Your task to perform on an android device: toggle sleep mode Image 0: 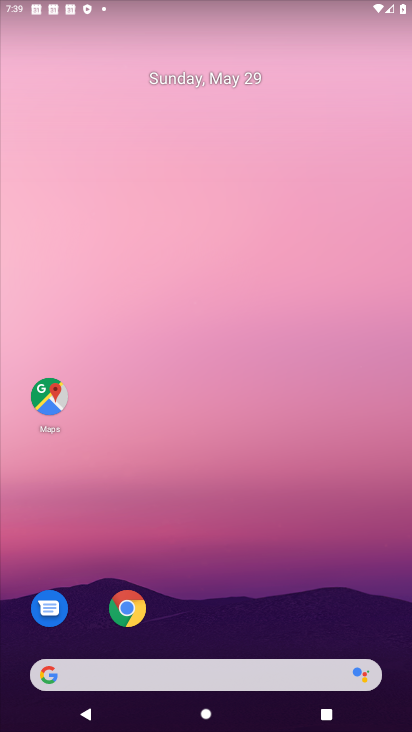
Step 0: drag from (236, 591) to (101, 88)
Your task to perform on an android device: toggle sleep mode Image 1: 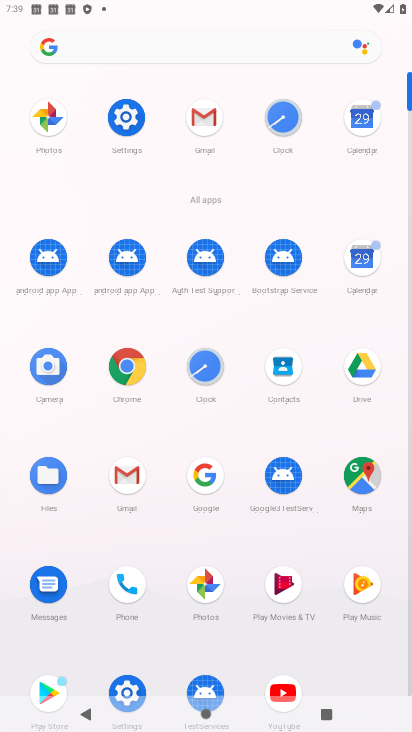
Step 1: click (125, 115)
Your task to perform on an android device: toggle sleep mode Image 2: 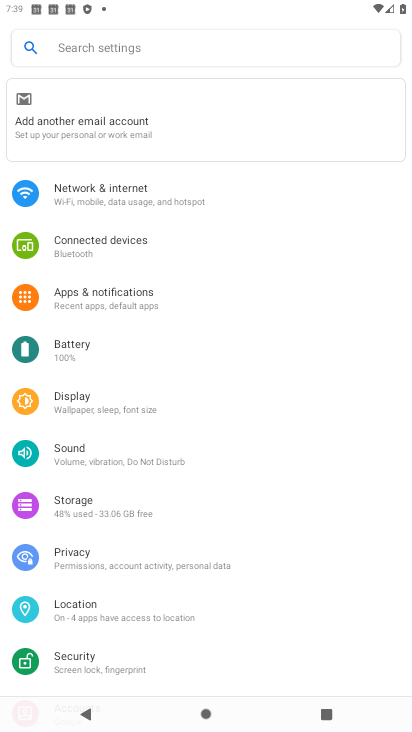
Step 2: click (66, 397)
Your task to perform on an android device: toggle sleep mode Image 3: 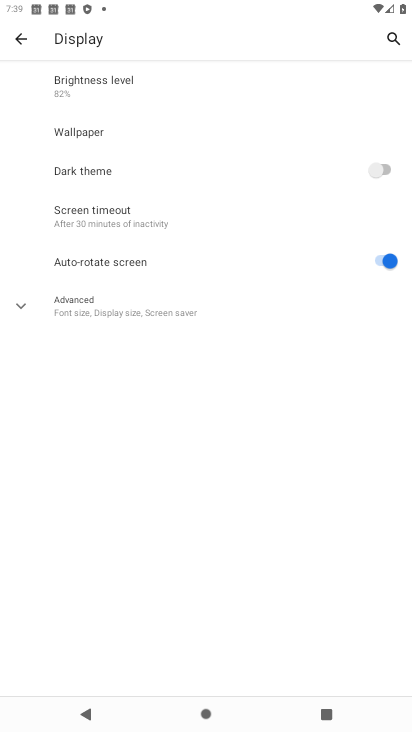
Step 3: task complete